Your task to perform on an android device: Clear the cart on costco.com. Add "dell alienware" to the cart on costco.com Image 0: 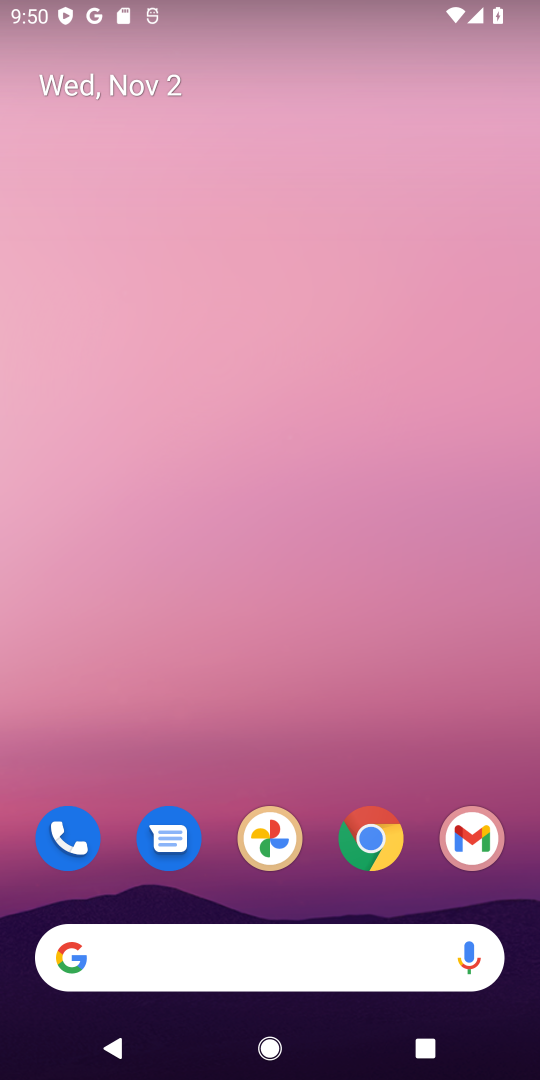
Step 0: click (391, 847)
Your task to perform on an android device: Clear the cart on costco.com. Add "dell alienware" to the cart on costco.com Image 1: 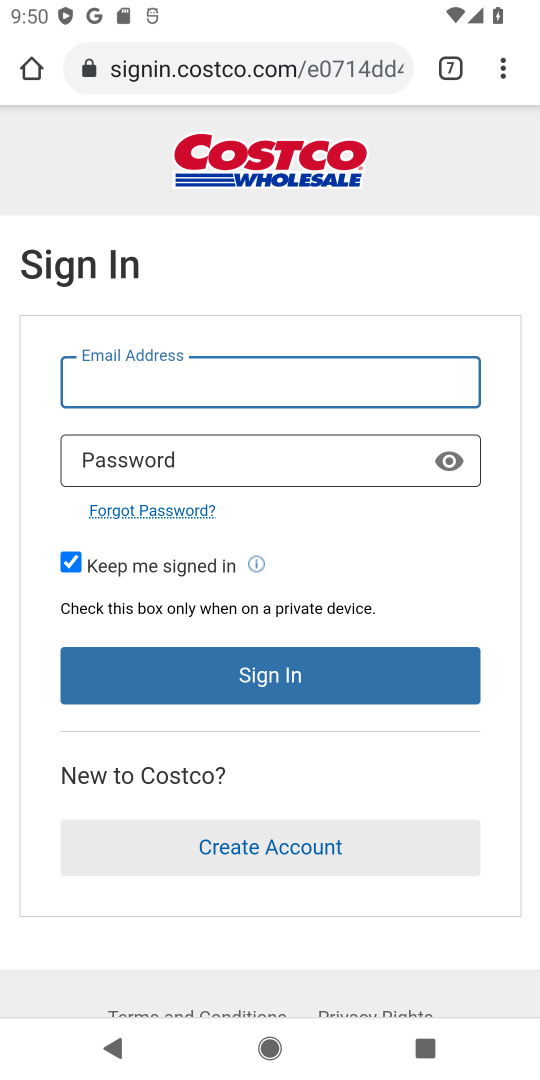
Step 1: click (450, 107)
Your task to perform on an android device: Clear the cart on costco.com. Add "dell alienware" to the cart on costco.com Image 2: 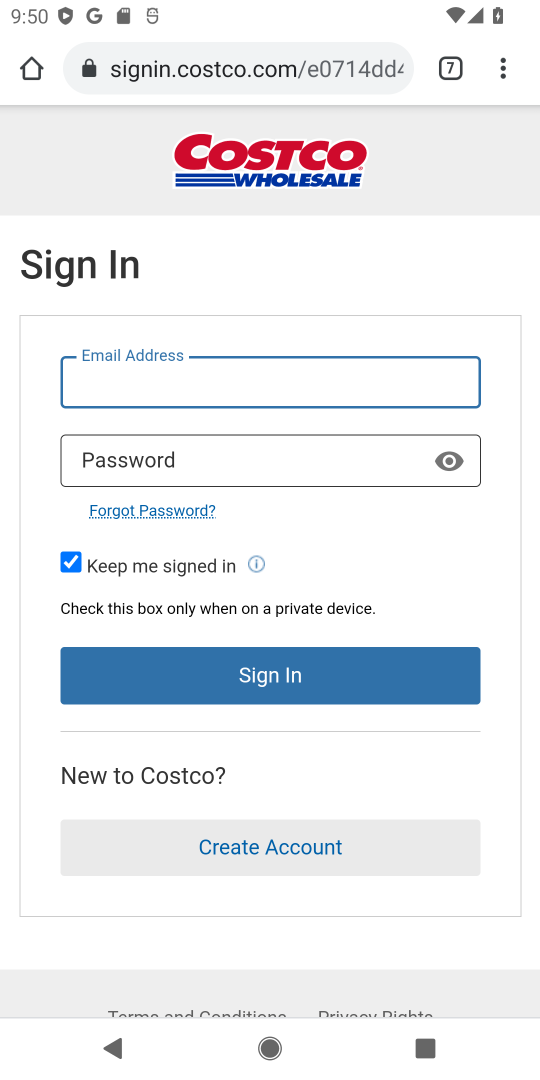
Step 2: press back button
Your task to perform on an android device: Clear the cart on costco.com. Add "dell alienware" to the cart on costco.com Image 3: 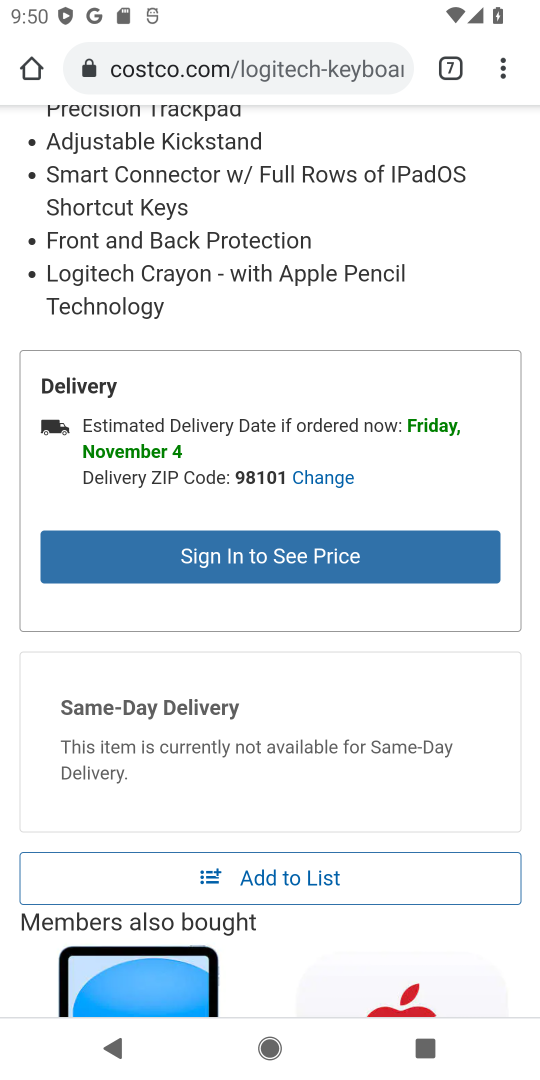
Step 3: drag from (402, 137) to (283, 987)
Your task to perform on an android device: Clear the cart on costco.com. Add "dell alienware" to the cart on costco.com Image 4: 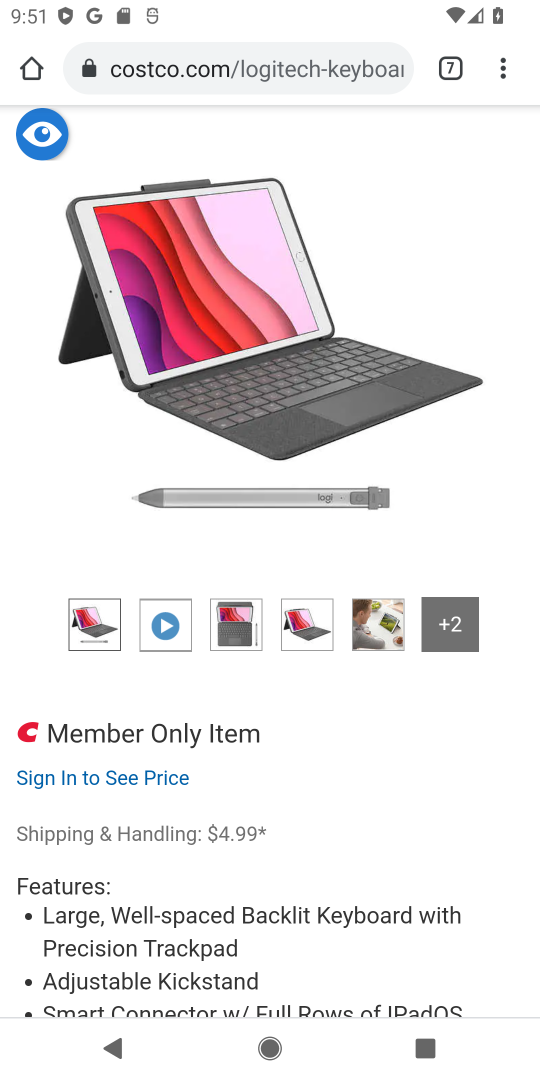
Step 4: drag from (445, 171) to (269, 866)
Your task to perform on an android device: Clear the cart on costco.com. Add "dell alienware" to the cart on costco.com Image 5: 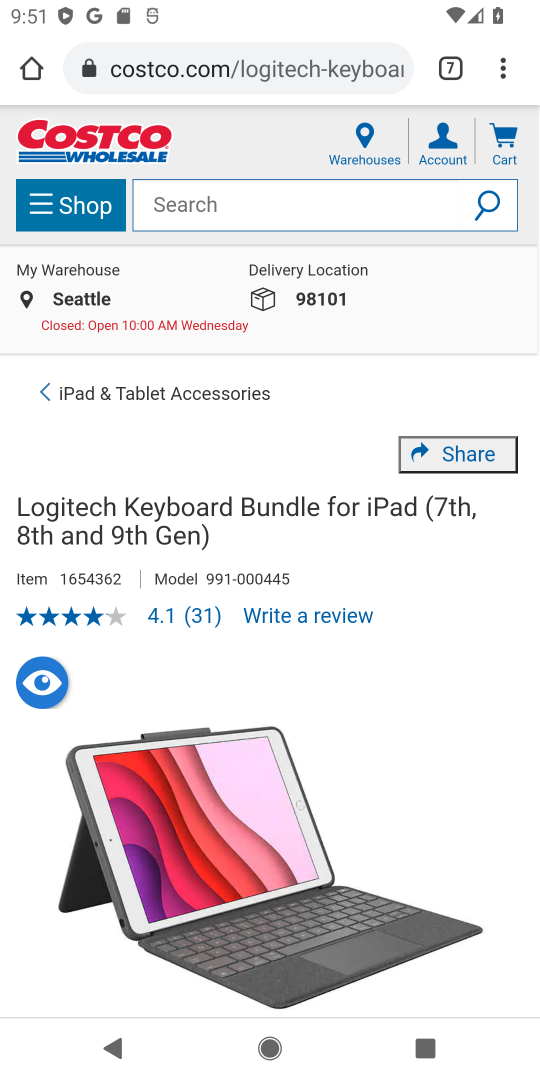
Step 5: click (240, 198)
Your task to perform on an android device: Clear the cart on costco.com. Add "dell alienware" to the cart on costco.com Image 6: 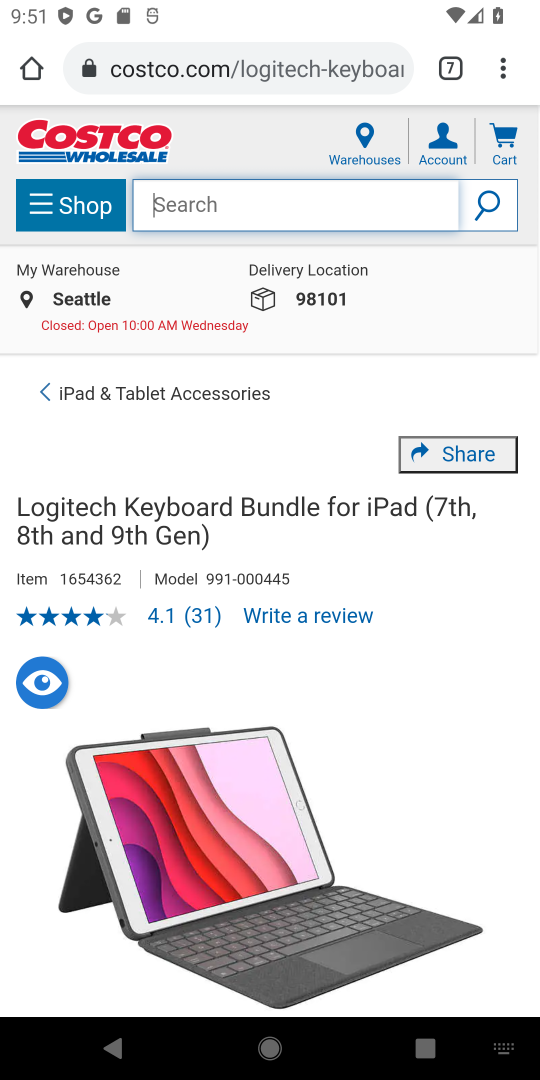
Step 6: type "dell alienware"
Your task to perform on an android device: Clear the cart on costco.com. Add "dell alienware" to the cart on costco.com Image 7: 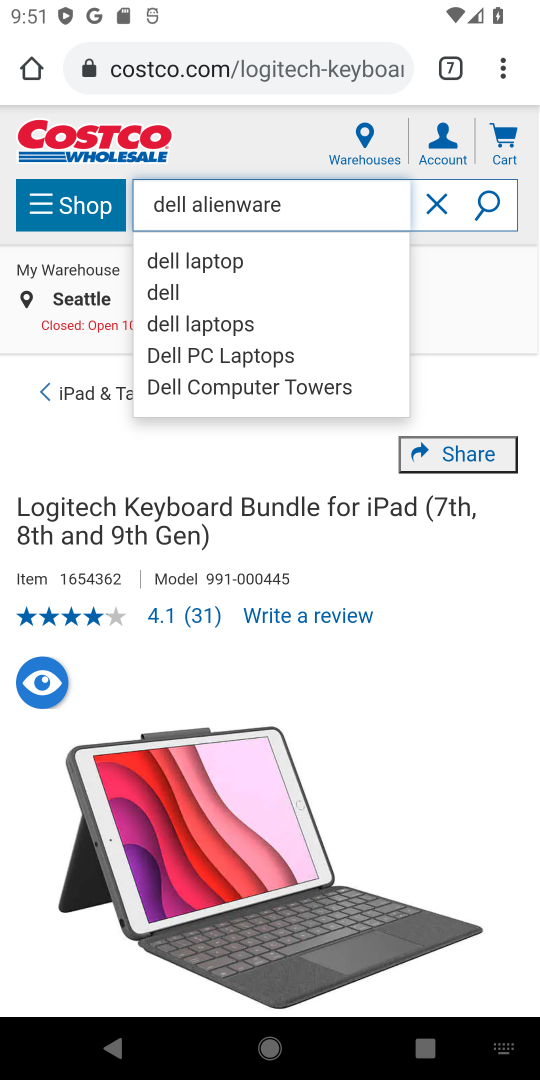
Step 7: click (221, 252)
Your task to perform on an android device: Clear the cart on costco.com. Add "dell alienware" to the cart on costco.com Image 8: 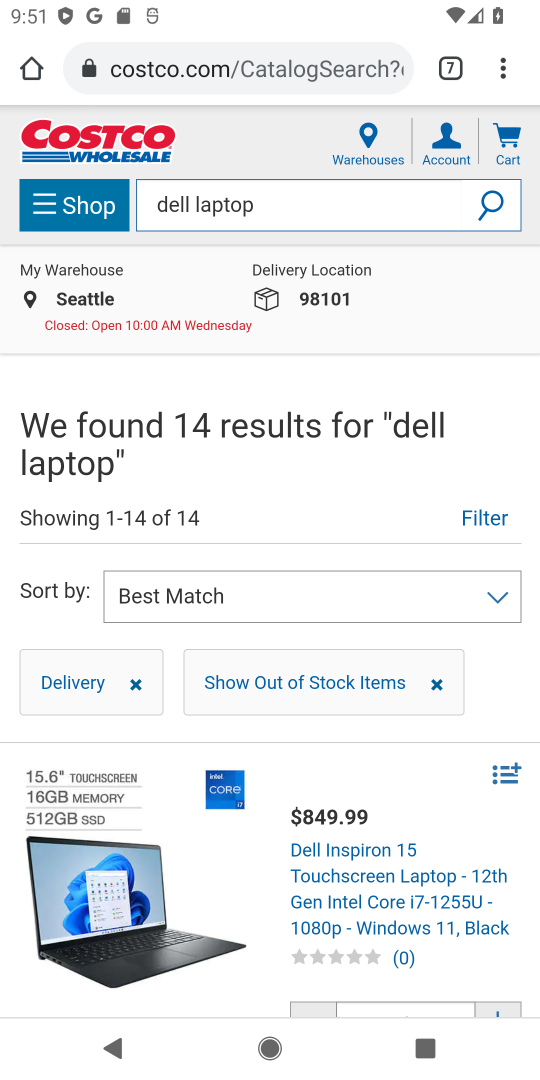
Step 8: drag from (433, 793) to (407, 319)
Your task to perform on an android device: Clear the cart on costco.com. Add "dell alienware" to the cart on costco.com Image 9: 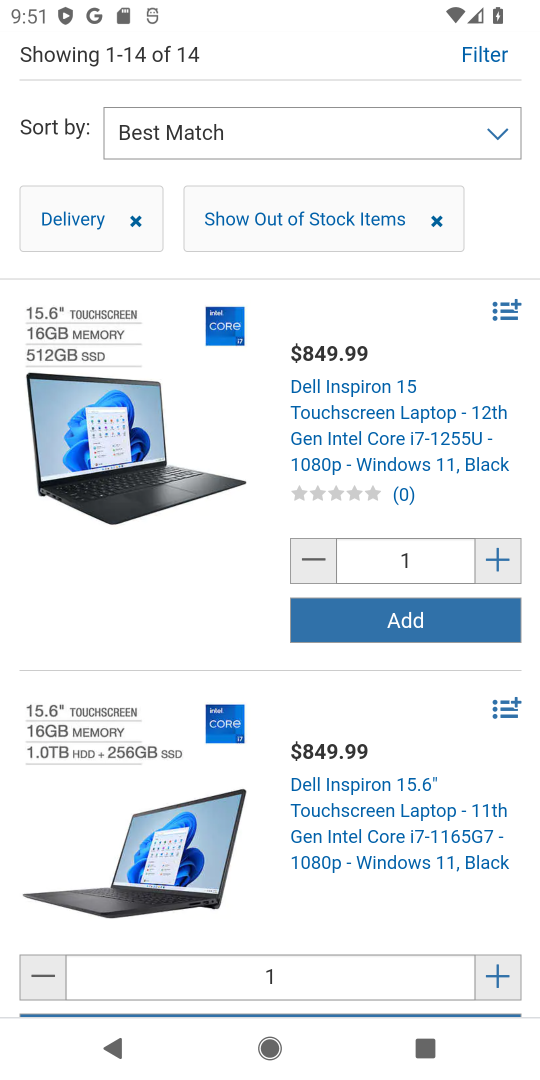
Step 9: click (427, 619)
Your task to perform on an android device: Clear the cart on costco.com. Add "dell alienware" to the cart on costco.com Image 10: 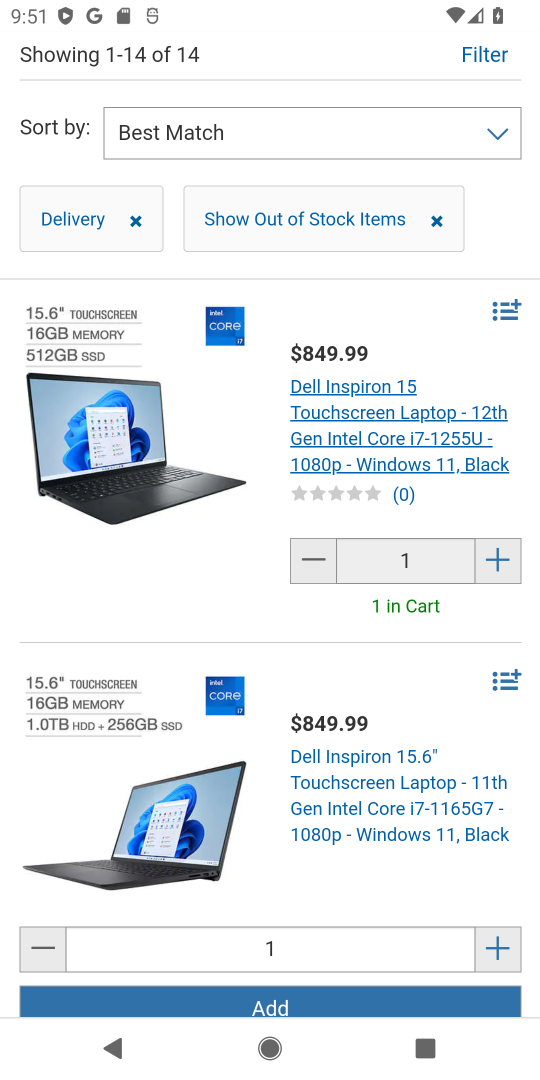
Step 10: task complete